Your task to perform on an android device: Open my contact list Image 0: 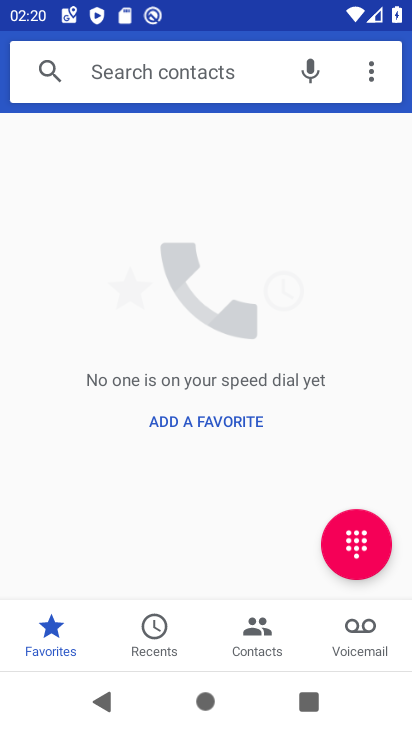
Step 0: press home button
Your task to perform on an android device: Open my contact list Image 1: 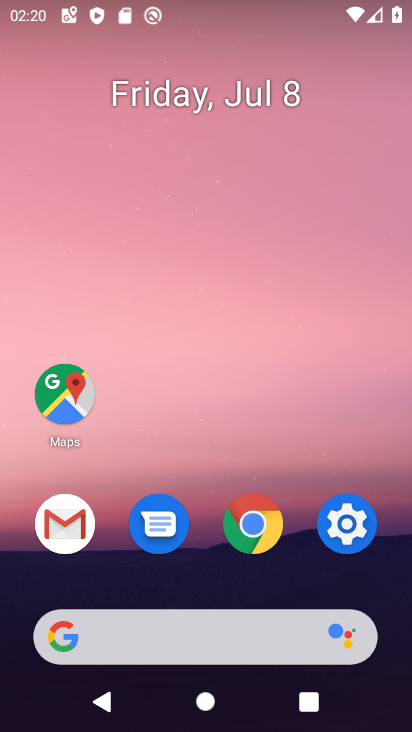
Step 1: drag from (179, 524) to (164, 228)
Your task to perform on an android device: Open my contact list Image 2: 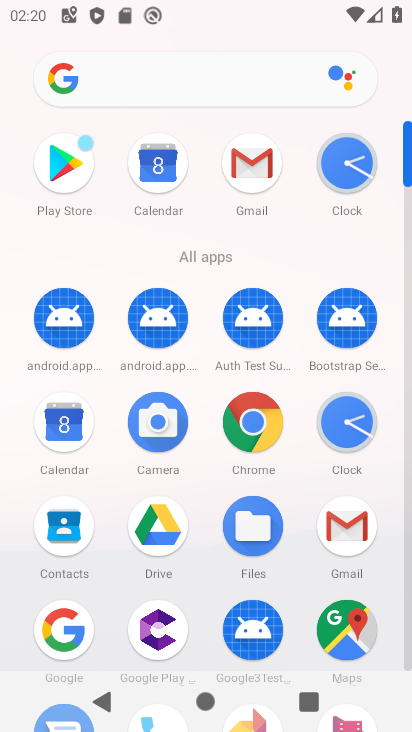
Step 2: click (52, 428)
Your task to perform on an android device: Open my contact list Image 3: 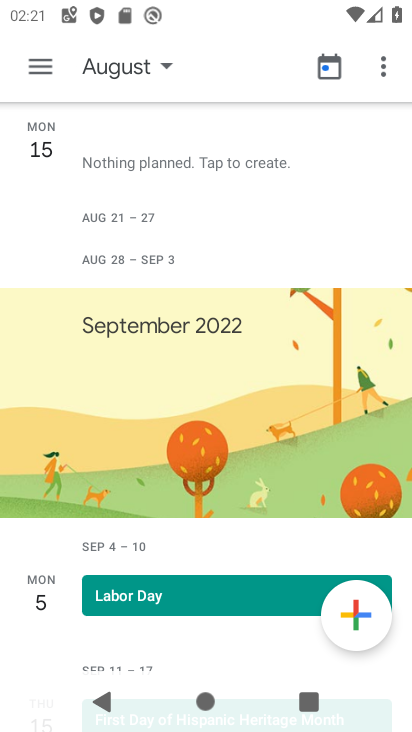
Step 3: press home button
Your task to perform on an android device: Open my contact list Image 4: 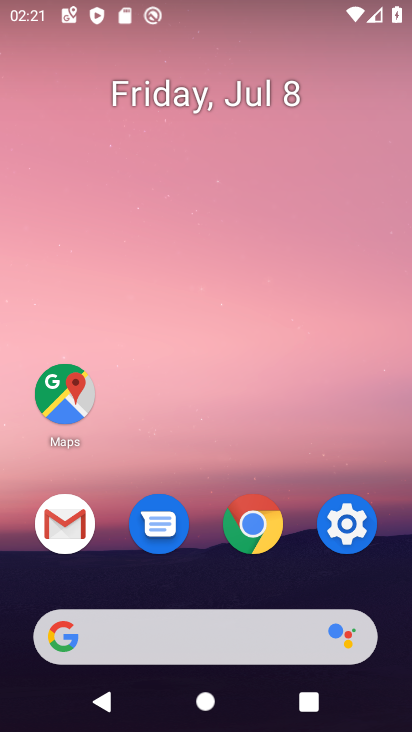
Step 4: drag from (202, 647) to (226, 32)
Your task to perform on an android device: Open my contact list Image 5: 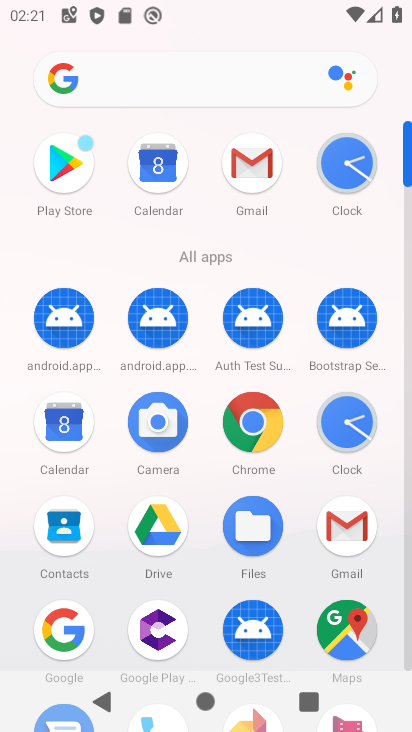
Step 5: click (66, 525)
Your task to perform on an android device: Open my contact list Image 6: 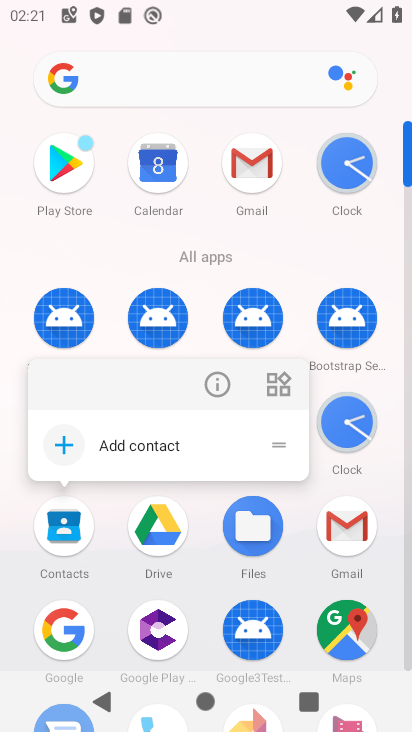
Step 6: click (65, 521)
Your task to perform on an android device: Open my contact list Image 7: 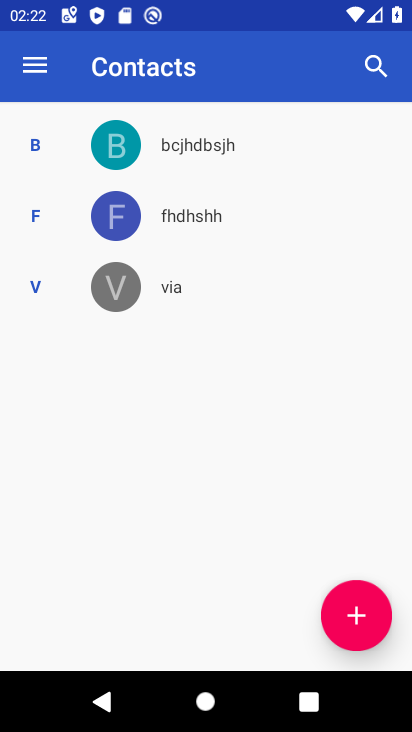
Step 7: task complete